Your task to perform on an android device: Go to internet settings Image 0: 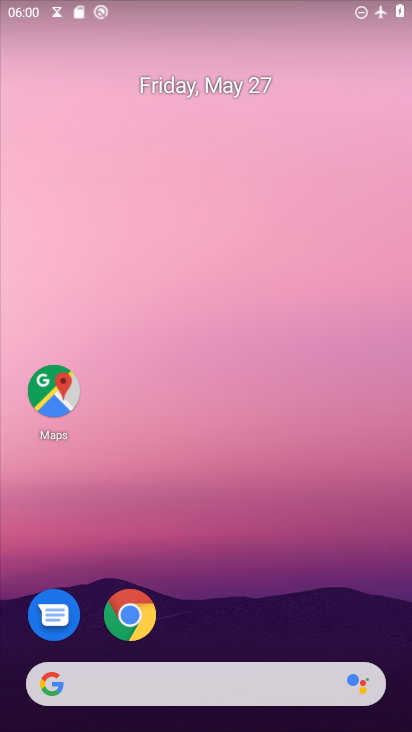
Step 0: drag from (271, 502) to (201, 33)
Your task to perform on an android device: Go to internet settings Image 1: 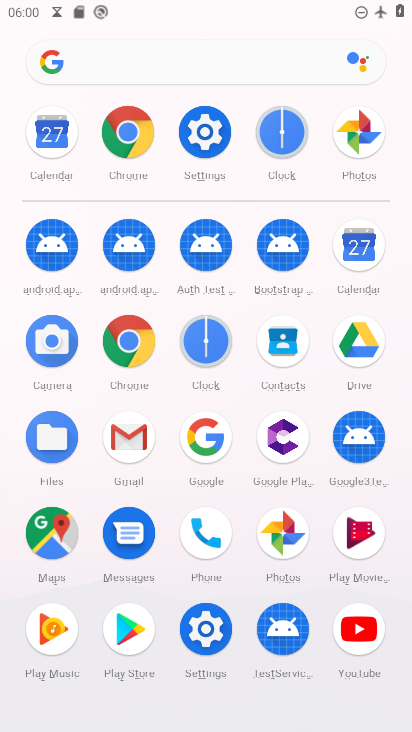
Step 1: click (199, 162)
Your task to perform on an android device: Go to internet settings Image 2: 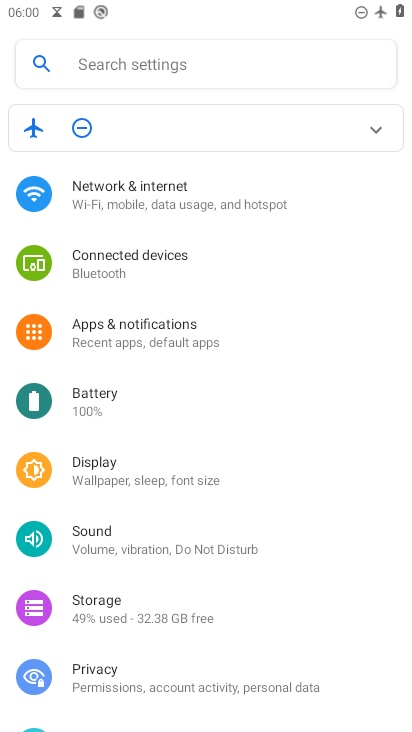
Step 2: click (195, 202)
Your task to perform on an android device: Go to internet settings Image 3: 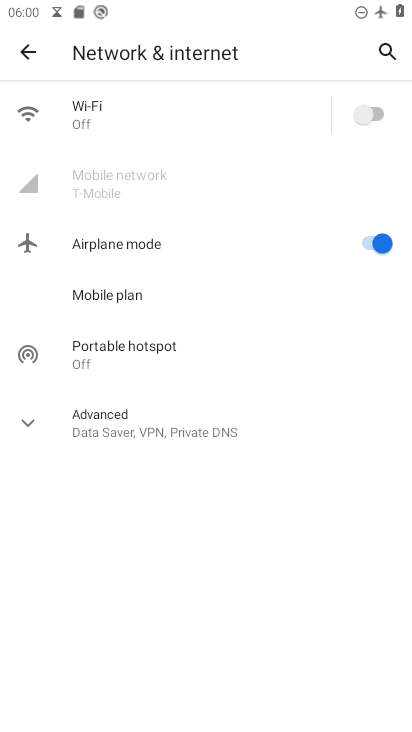
Step 3: task complete